Your task to perform on an android device: change the clock display to digital Image 0: 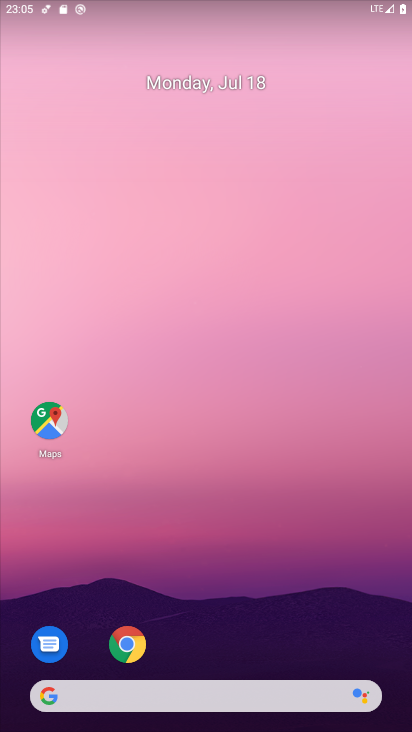
Step 0: drag from (349, 635) to (355, 183)
Your task to perform on an android device: change the clock display to digital Image 1: 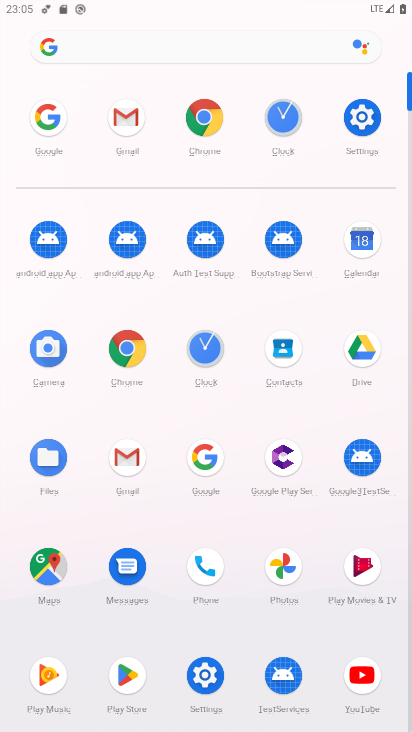
Step 1: click (207, 364)
Your task to perform on an android device: change the clock display to digital Image 2: 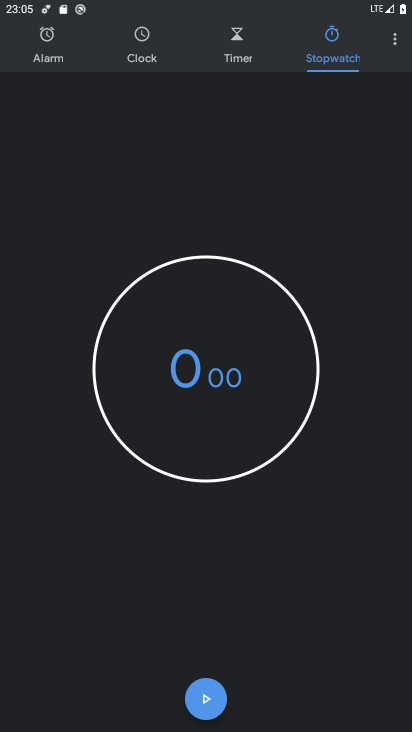
Step 2: click (396, 46)
Your task to perform on an android device: change the clock display to digital Image 3: 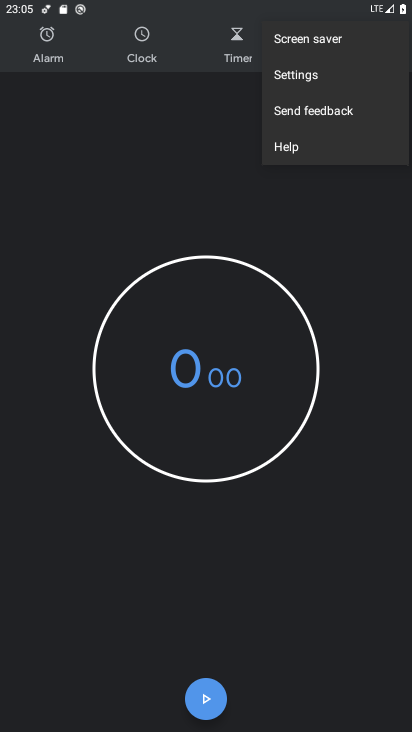
Step 3: click (311, 88)
Your task to perform on an android device: change the clock display to digital Image 4: 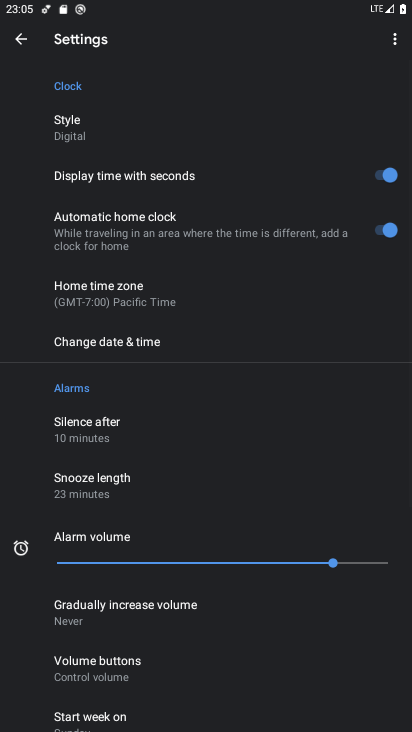
Step 4: task complete